Your task to perform on an android device: make emails show in primary in the gmail app Image 0: 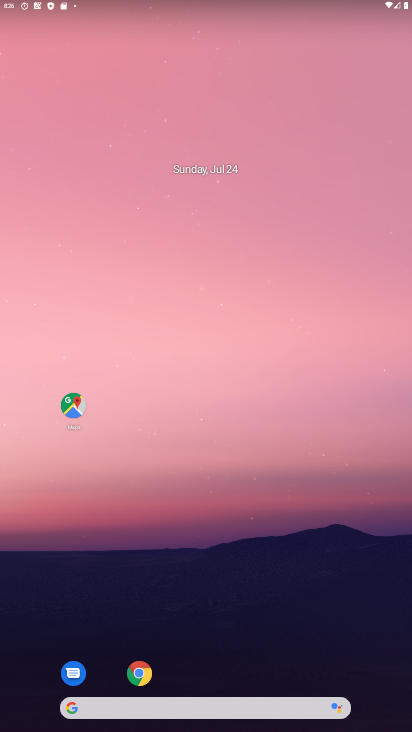
Step 0: drag from (196, 607) to (271, 0)
Your task to perform on an android device: make emails show in primary in the gmail app Image 1: 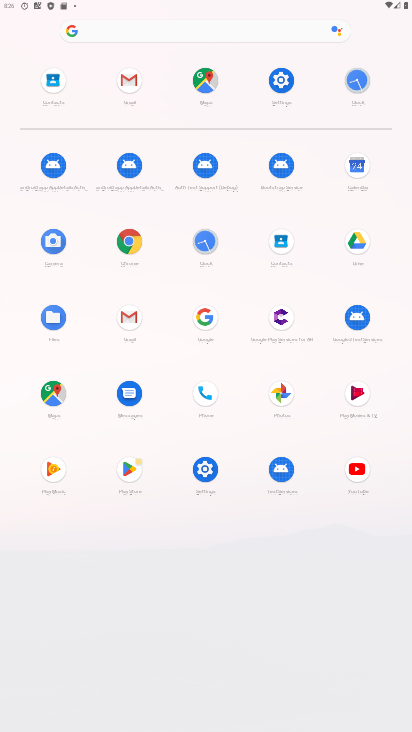
Step 1: click (128, 316)
Your task to perform on an android device: make emails show in primary in the gmail app Image 2: 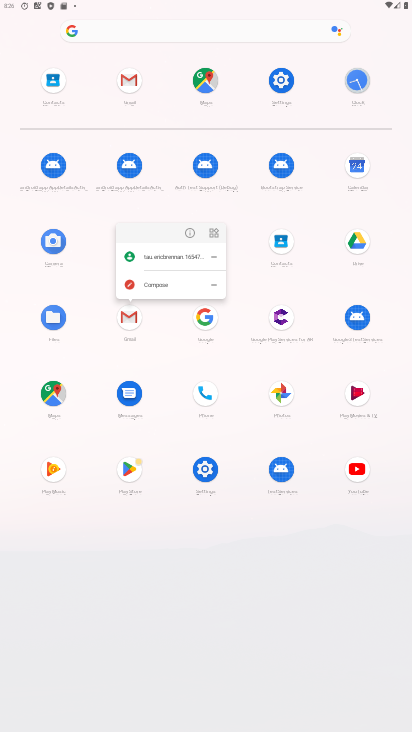
Step 2: click (193, 229)
Your task to perform on an android device: make emails show in primary in the gmail app Image 3: 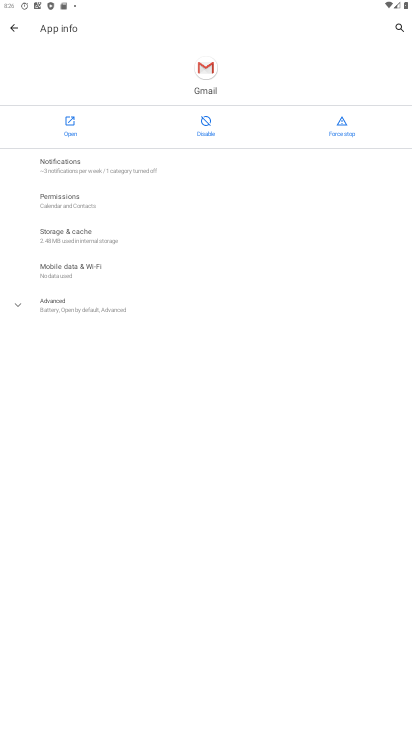
Step 3: click (69, 127)
Your task to perform on an android device: make emails show in primary in the gmail app Image 4: 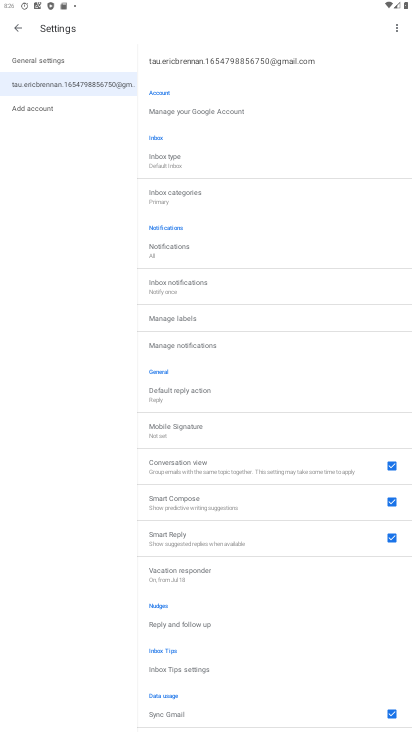
Step 4: drag from (211, 583) to (204, 253)
Your task to perform on an android device: make emails show in primary in the gmail app Image 5: 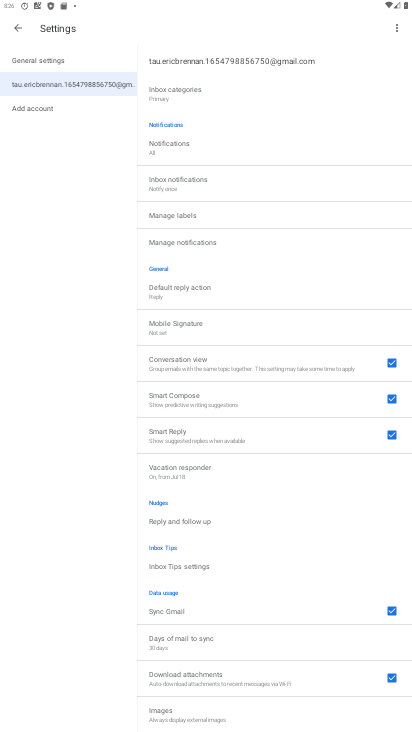
Step 5: click (66, 60)
Your task to perform on an android device: make emails show in primary in the gmail app Image 6: 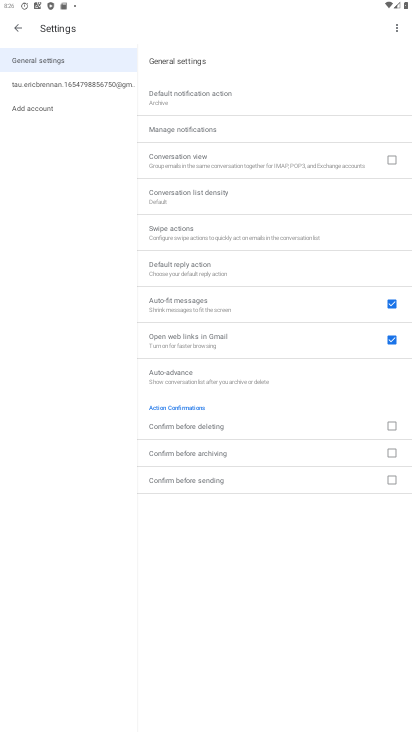
Step 6: click (76, 90)
Your task to perform on an android device: make emails show in primary in the gmail app Image 7: 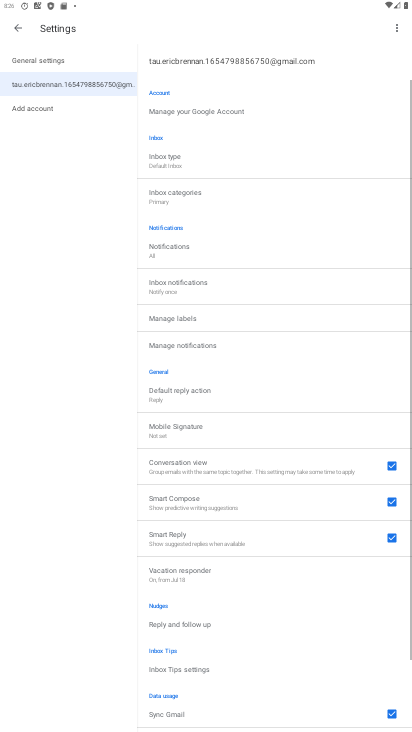
Step 7: click (15, 23)
Your task to perform on an android device: make emails show in primary in the gmail app Image 8: 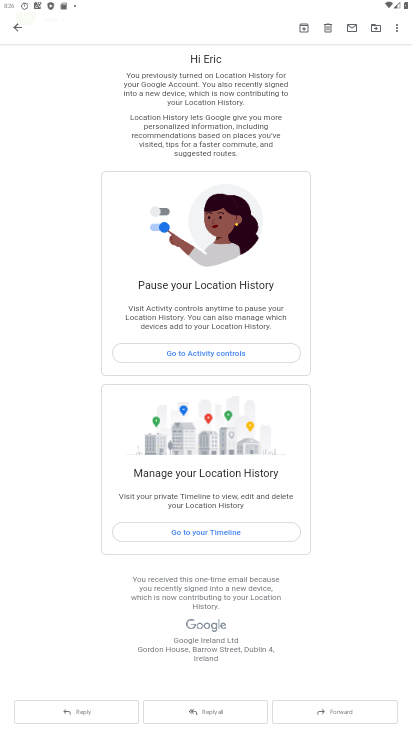
Step 8: click (11, 28)
Your task to perform on an android device: make emails show in primary in the gmail app Image 9: 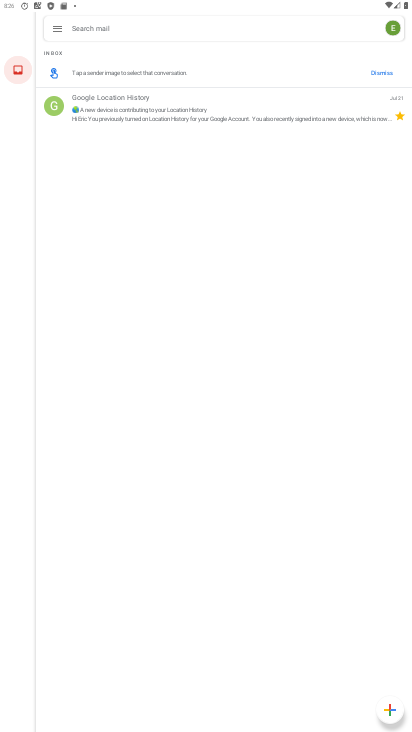
Step 9: click (53, 34)
Your task to perform on an android device: make emails show in primary in the gmail app Image 10: 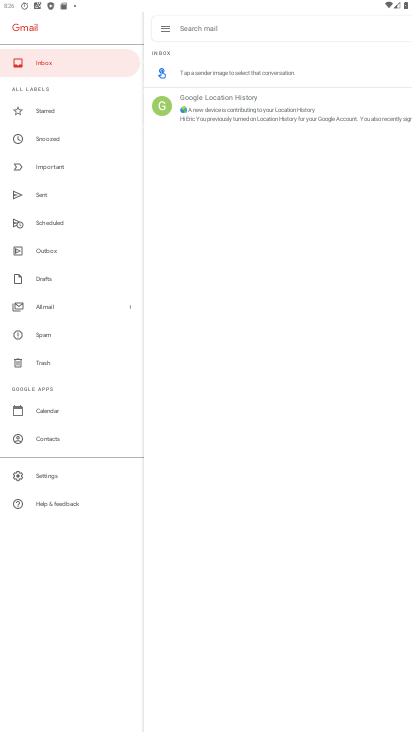
Step 10: click (27, 65)
Your task to perform on an android device: make emails show in primary in the gmail app Image 11: 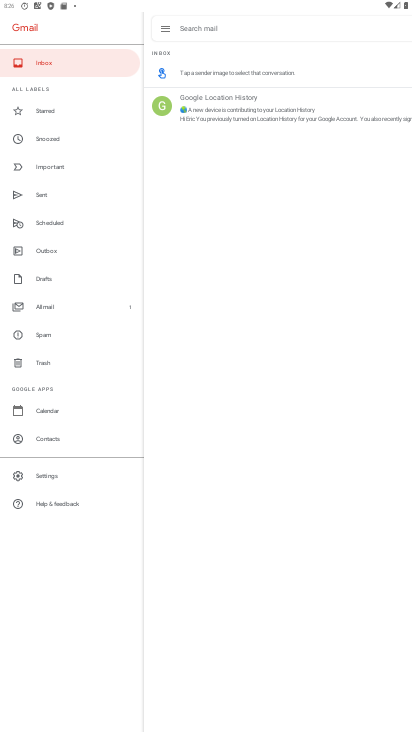
Step 11: task complete